Your task to perform on an android device: Open Amazon Image 0: 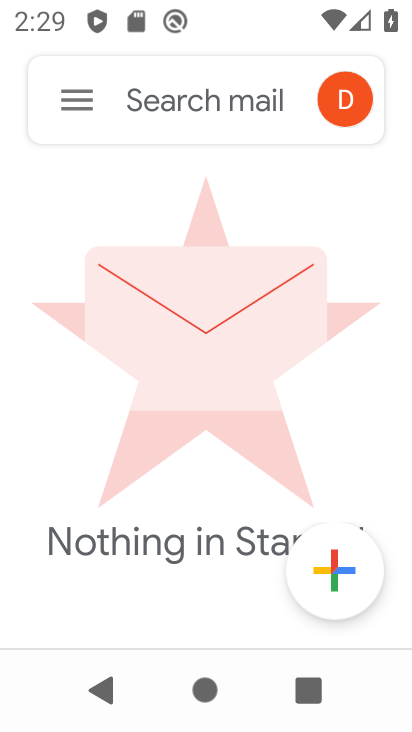
Step 0: press home button
Your task to perform on an android device: Open Amazon Image 1: 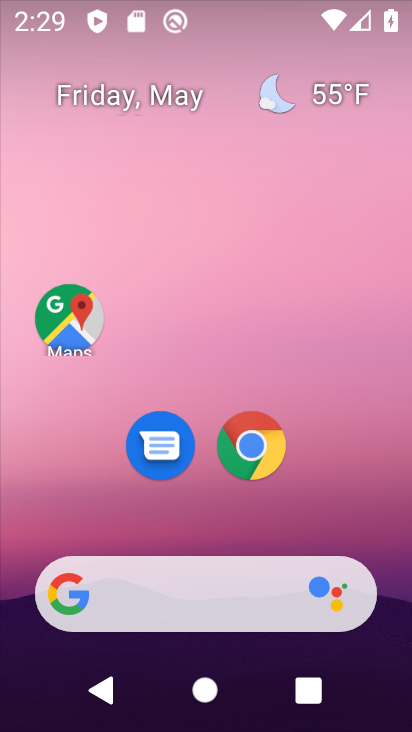
Step 1: drag from (334, 527) to (318, 157)
Your task to perform on an android device: Open Amazon Image 2: 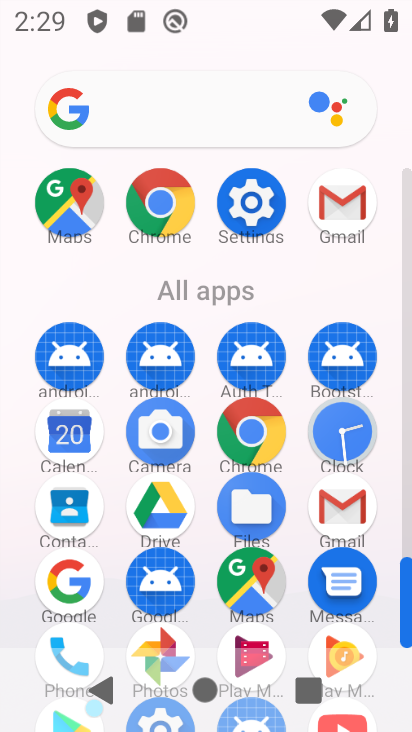
Step 2: click (263, 423)
Your task to perform on an android device: Open Amazon Image 3: 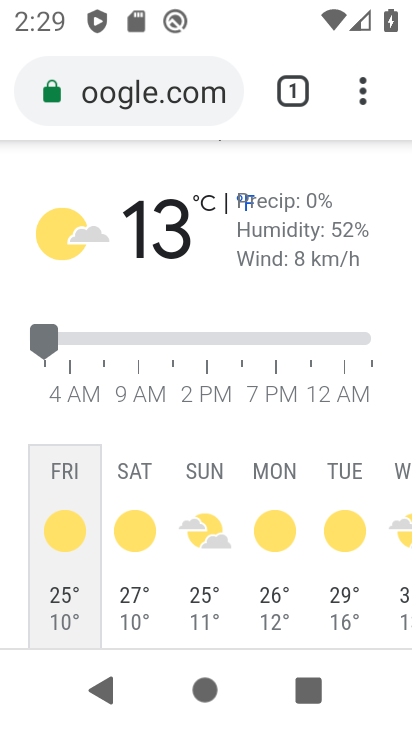
Step 3: click (167, 100)
Your task to perform on an android device: Open Amazon Image 4: 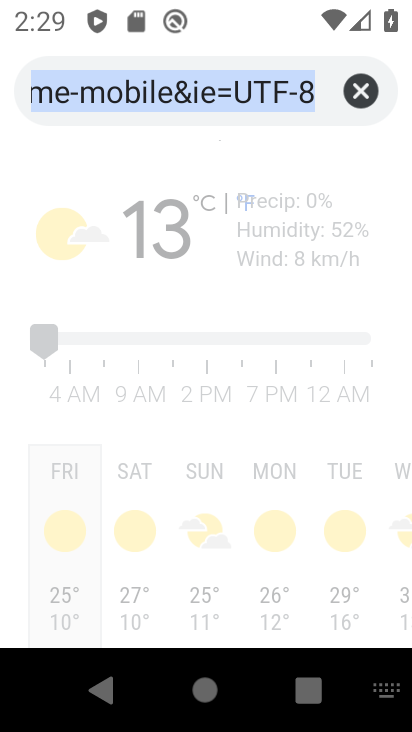
Step 4: click (351, 100)
Your task to perform on an android device: Open Amazon Image 5: 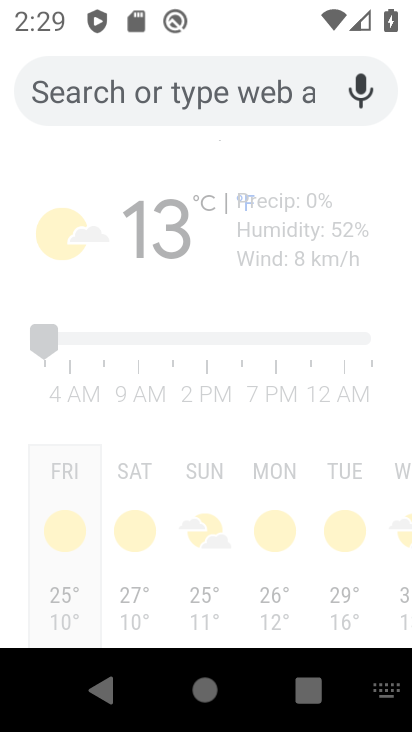
Step 5: type "amazon"
Your task to perform on an android device: Open Amazon Image 6: 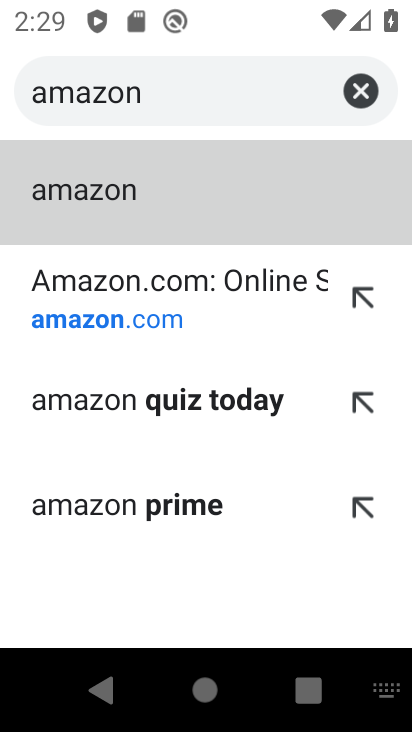
Step 6: click (184, 216)
Your task to perform on an android device: Open Amazon Image 7: 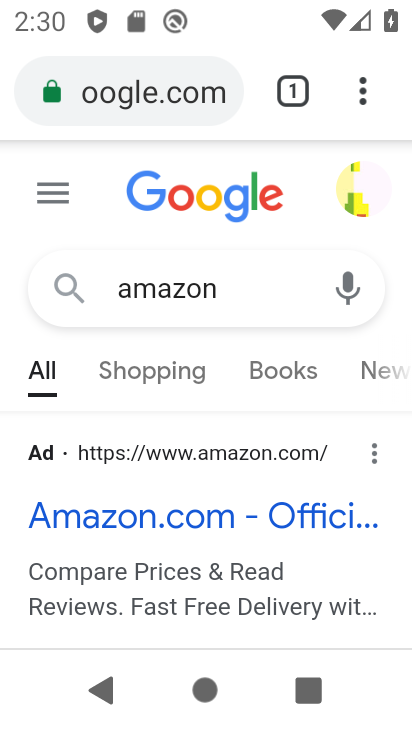
Step 7: task complete